Your task to perform on an android device: clear history in the chrome app Image 0: 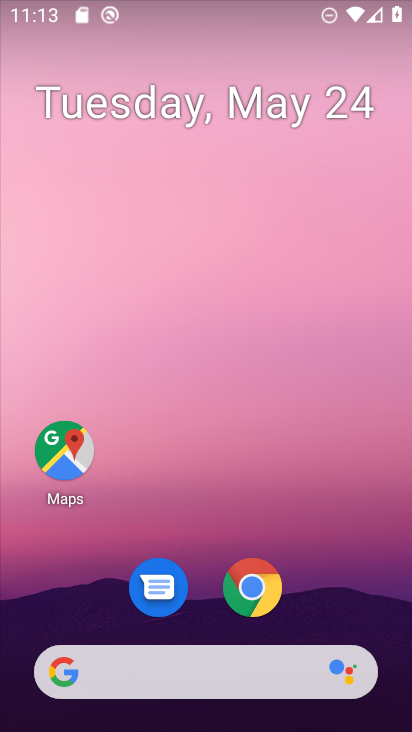
Step 0: click (255, 589)
Your task to perform on an android device: clear history in the chrome app Image 1: 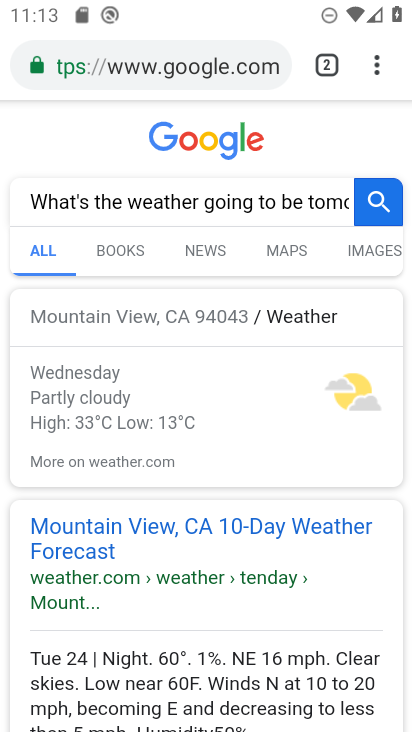
Step 1: drag from (389, 62) to (135, 348)
Your task to perform on an android device: clear history in the chrome app Image 2: 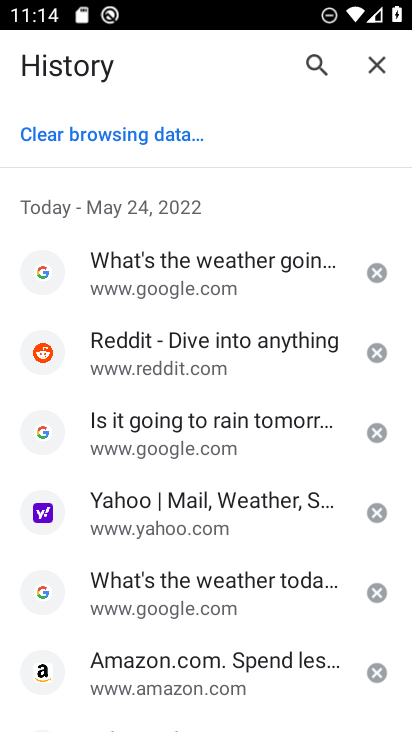
Step 2: click (105, 151)
Your task to perform on an android device: clear history in the chrome app Image 3: 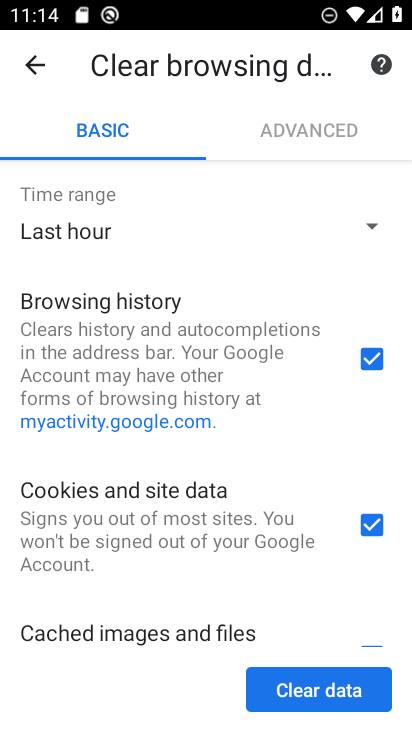
Step 3: click (301, 713)
Your task to perform on an android device: clear history in the chrome app Image 4: 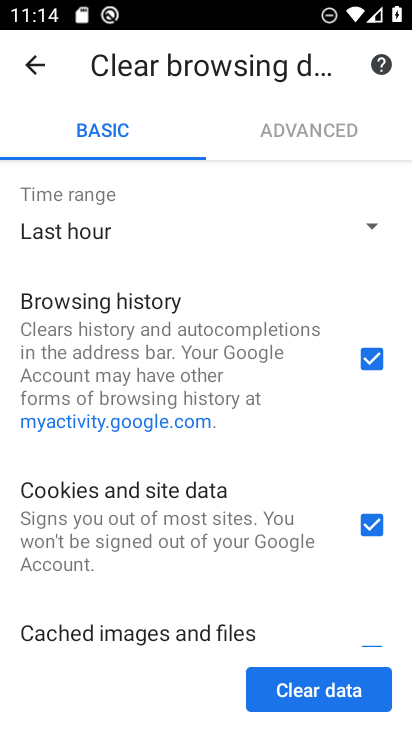
Step 4: click (292, 692)
Your task to perform on an android device: clear history in the chrome app Image 5: 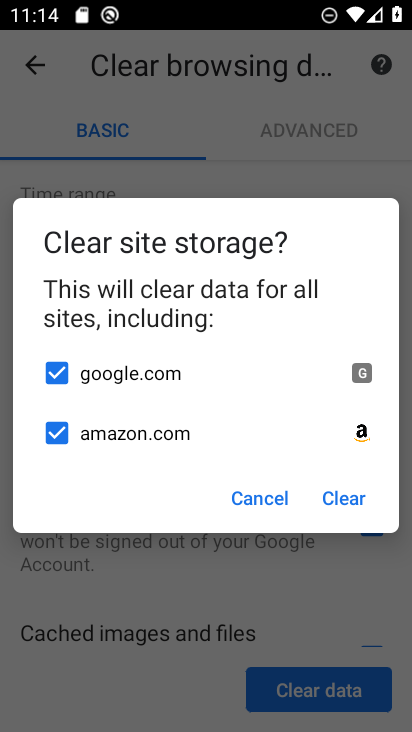
Step 5: click (331, 487)
Your task to perform on an android device: clear history in the chrome app Image 6: 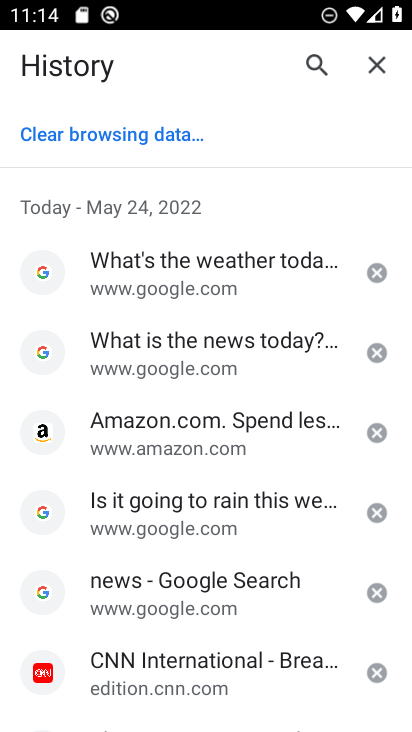
Step 6: click (140, 145)
Your task to perform on an android device: clear history in the chrome app Image 7: 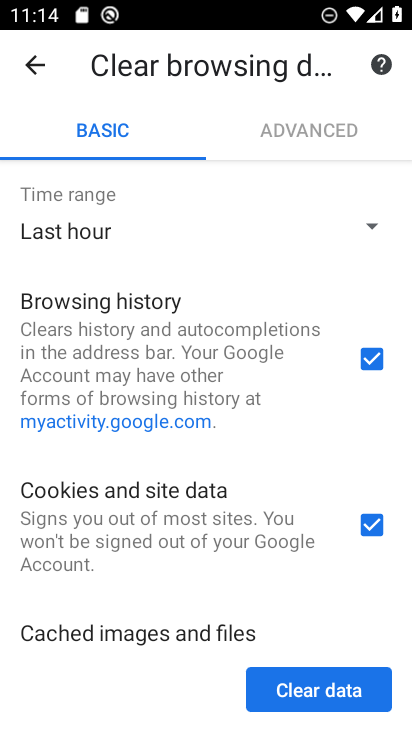
Step 7: click (356, 225)
Your task to perform on an android device: clear history in the chrome app Image 8: 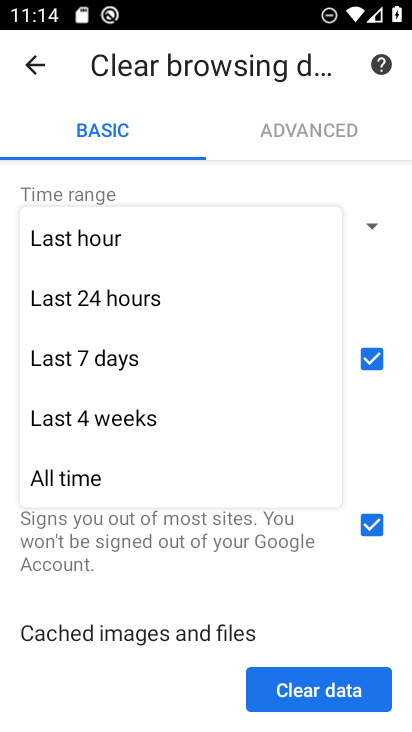
Step 8: click (119, 306)
Your task to perform on an android device: clear history in the chrome app Image 9: 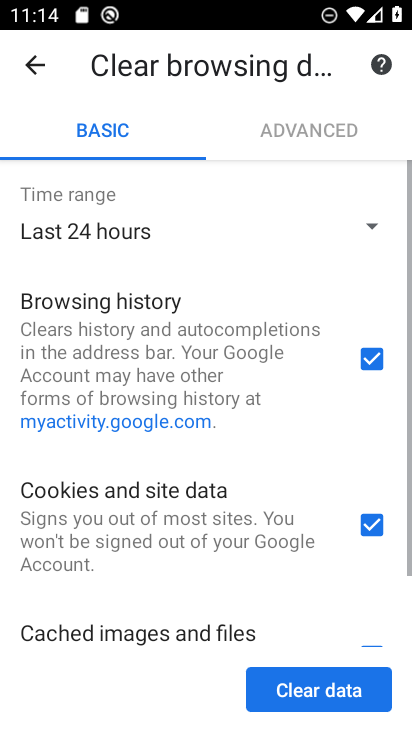
Step 9: click (363, 221)
Your task to perform on an android device: clear history in the chrome app Image 10: 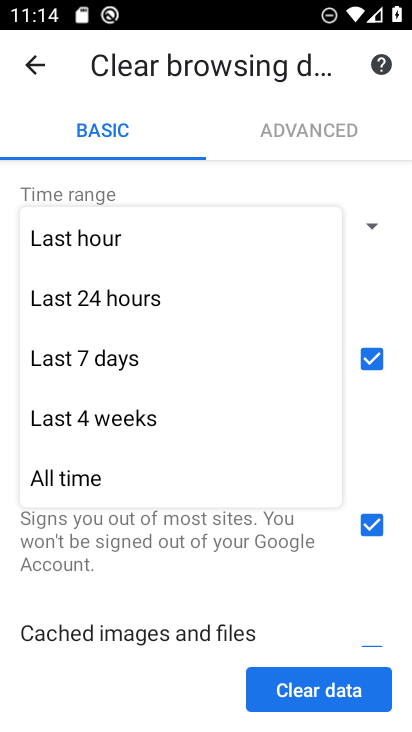
Step 10: click (88, 475)
Your task to perform on an android device: clear history in the chrome app Image 11: 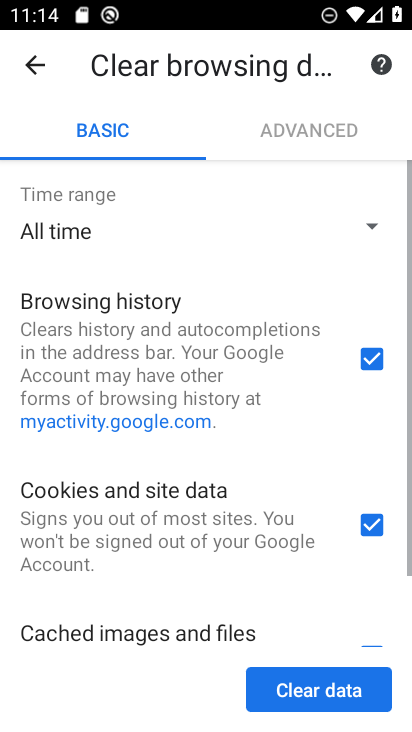
Step 11: click (330, 688)
Your task to perform on an android device: clear history in the chrome app Image 12: 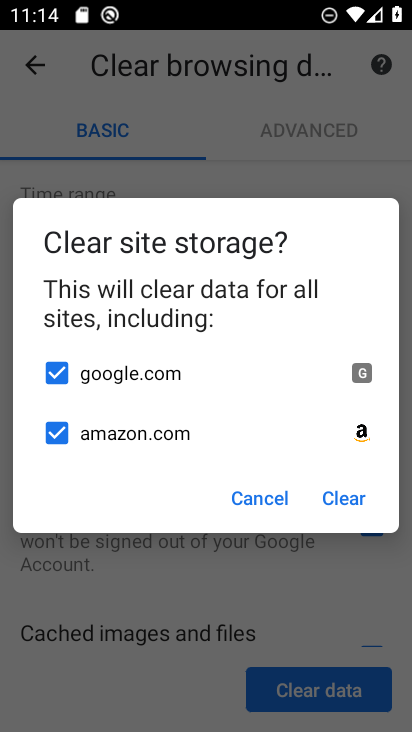
Step 12: click (323, 491)
Your task to perform on an android device: clear history in the chrome app Image 13: 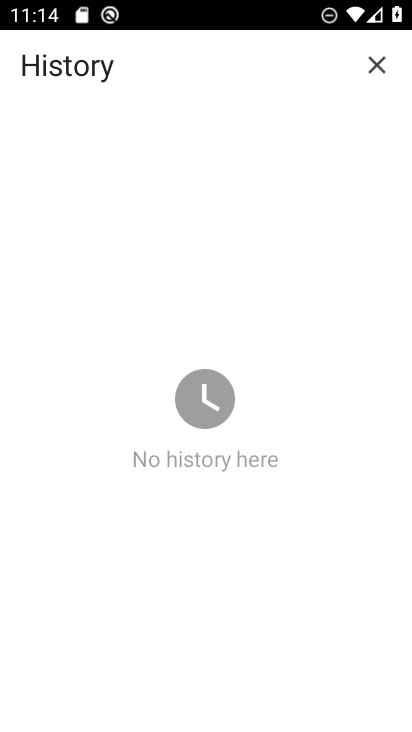
Step 13: task complete